Your task to perform on an android device: toggle translation in the chrome app Image 0: 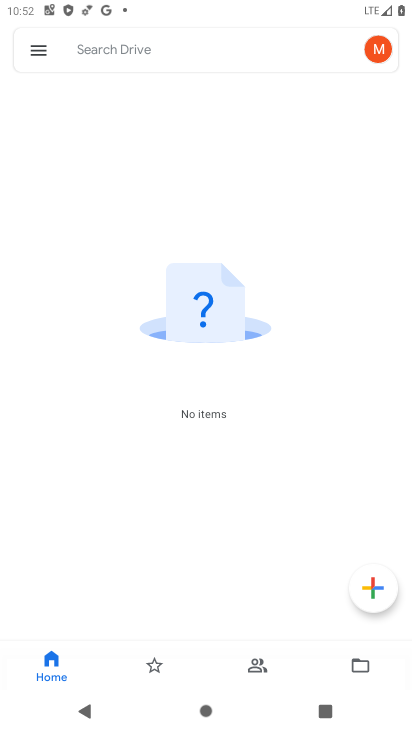
Step 0: press home button
Your task to perform on an android device: toggle translation in the chrome app Image 1: 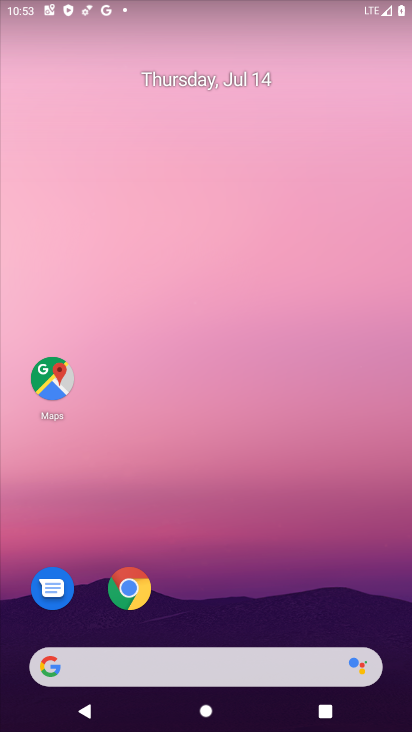
Step 1: click (137, 592)
Your task to perform on an android device: toggle translation in the chrome app Image 2: 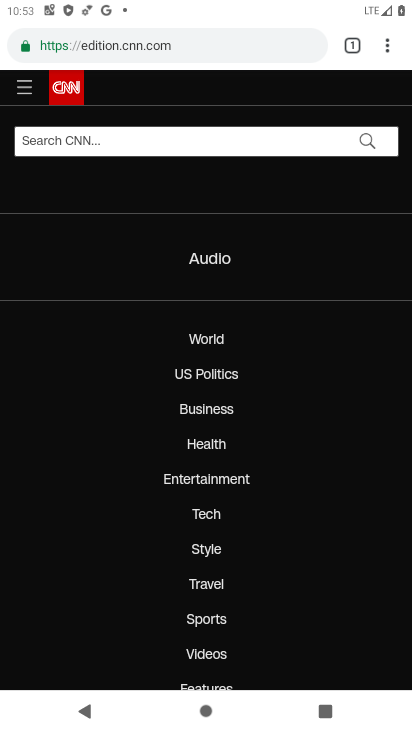
Step 2: drag from (387, 48) to (256, 547)
Your task to perform on an android device: toggle translation in the chrome app Image 3: 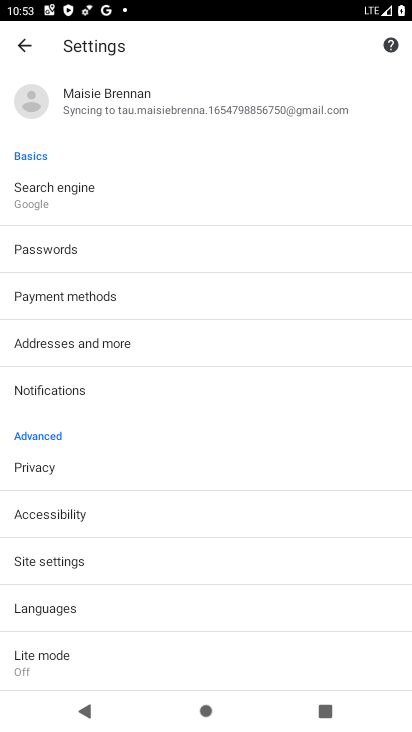
Step 3: click (75, 608)
Your task to perform on an android device: toggle translation in the chrome app Image 4: 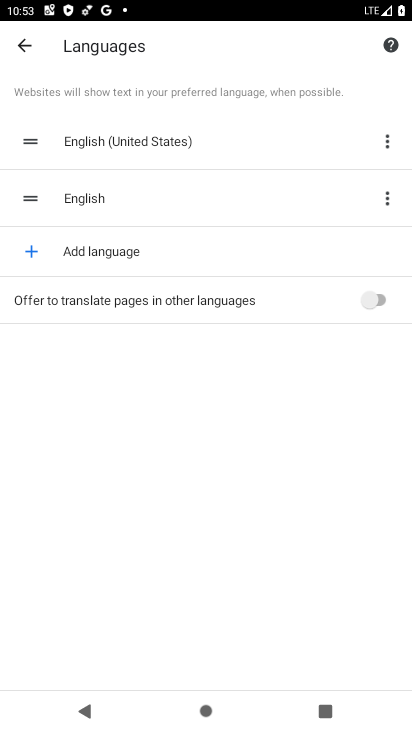
Step 4: click (379, 299)
Your task to perform on an android device: toggle translation in the chrome app Image 5: 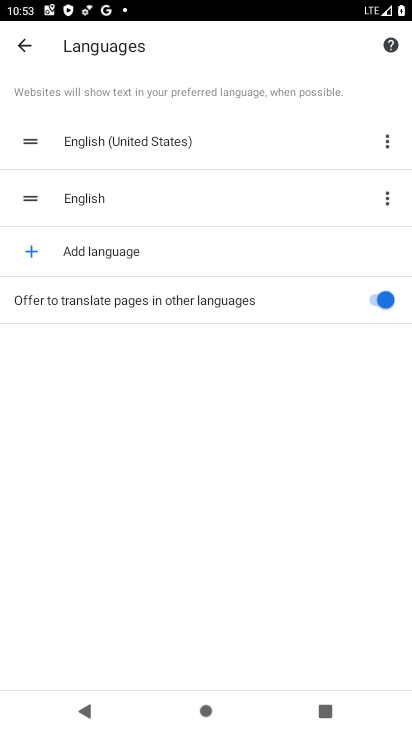
Step 5: task complete